Your task to perform on an android device: Open wifi settings Image 0: 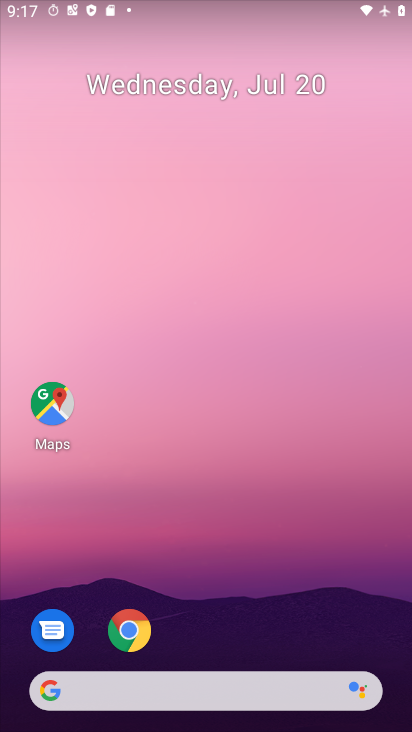
Step 0: drag from (253, 669) to (262, 269)
Your task to perform on an android device: Open wifi settings Image 1: 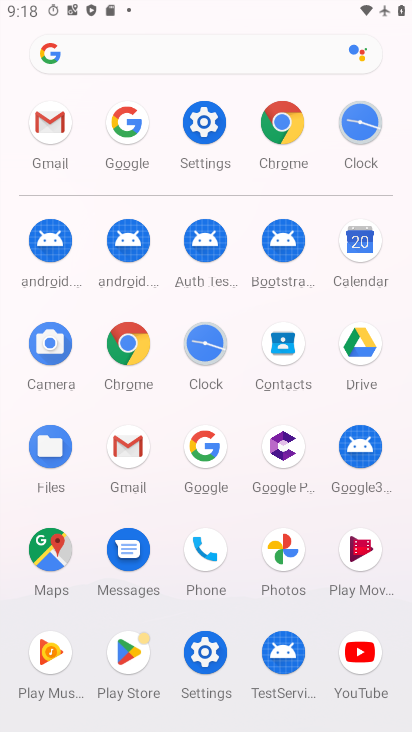
Step 1: click (208, 130)
Your task to perform on an android device: Open wifi settings Image 2: 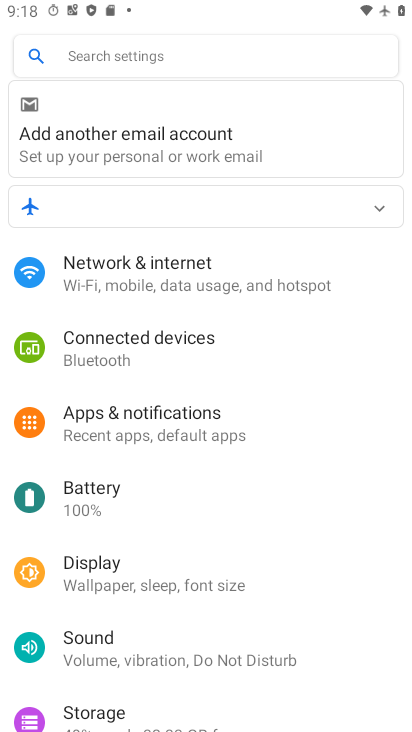
Step 2: click (147, 286)
Your task to perform on an android device: Open wifi settings Image 3: 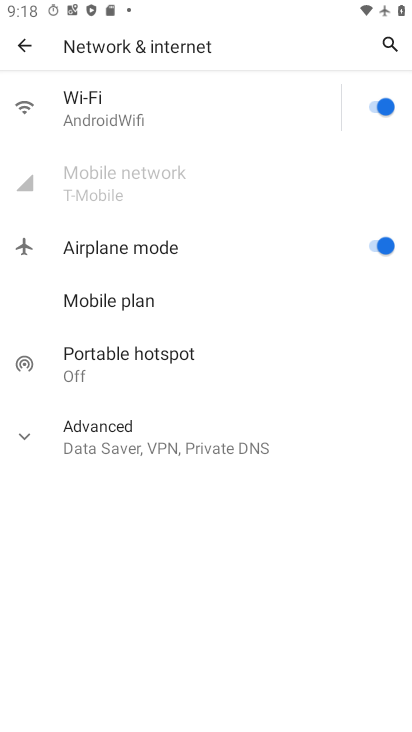
Step 3: click (151, 123)
Your task to perform on an android device: Open wifi settings Image 4: 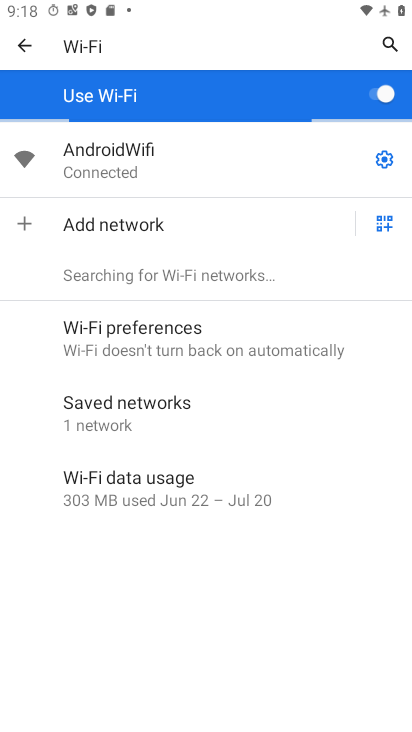
Step 4: task complete